Your task to perform on an android device: open a new tab in the chrome app Image 0: 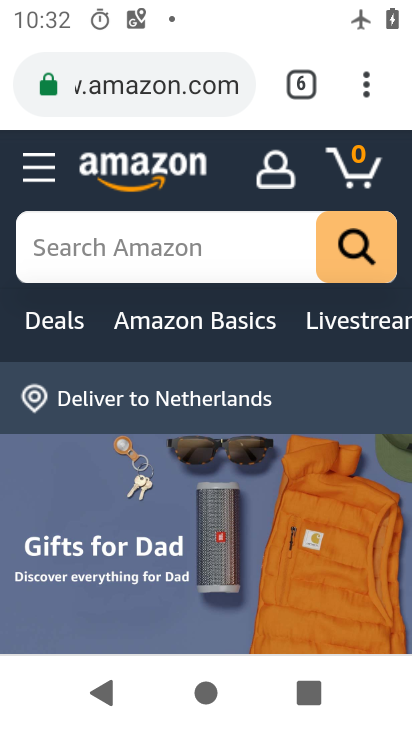
Step 0: click (307, 81)
Your task to perform on an android device: open a new tab in the chrome app Image 1: 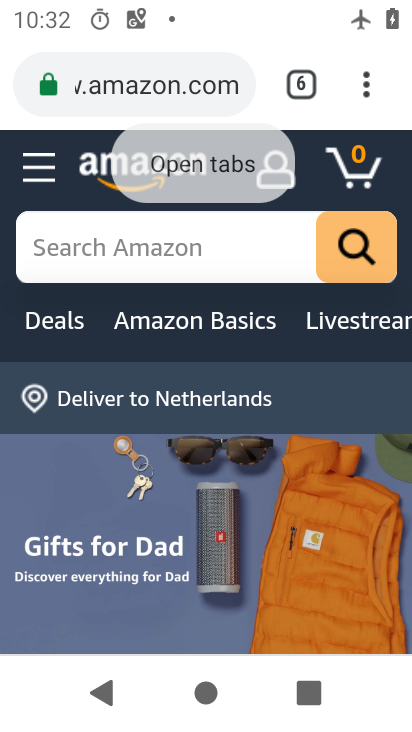
Step 1: click (308, 85)
Your task to perform on an android device: open a new tab in the chrome app Image 2: 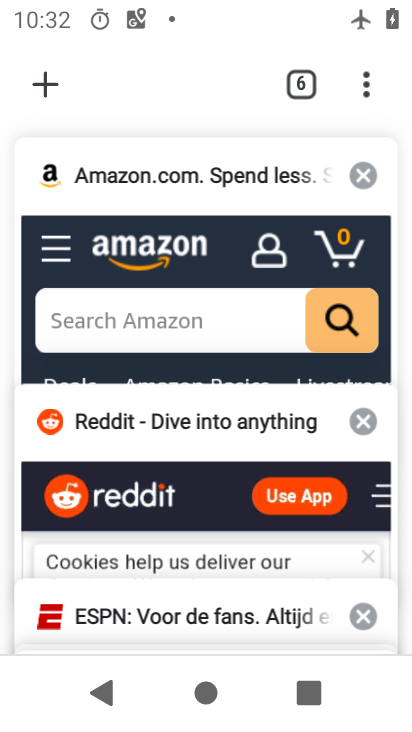
Step 2: click (50, 96)
Your task to perform on an android device: open a new tab in the chrome app Image 3: 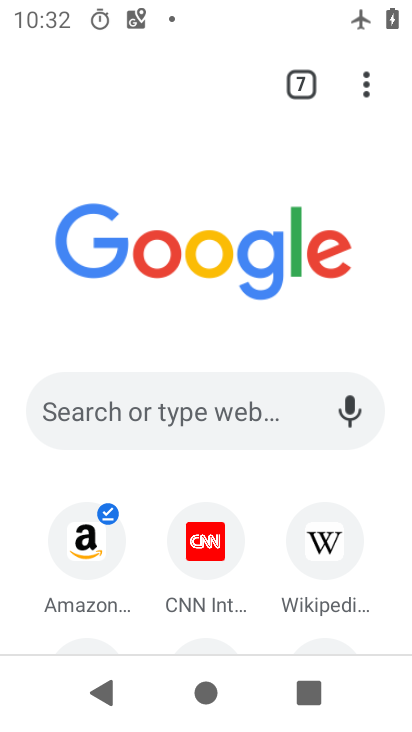
Step 3: task complete